Your task to perform on an android device: Open Maps and search for coffee Image 0: 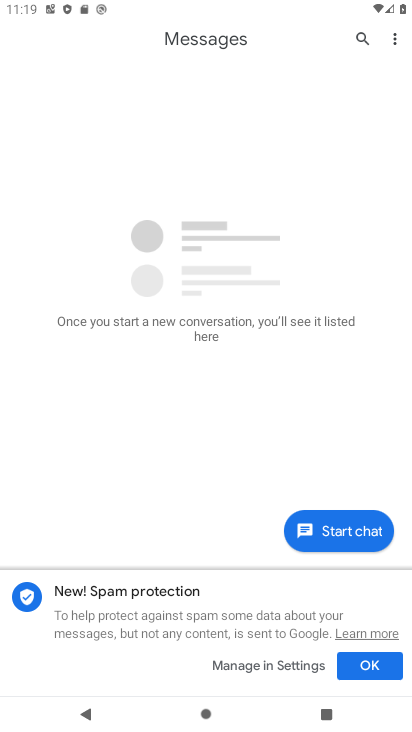
Step 0: press home button
Your task to perform on an android device: Open Maps and search for coffee Image 1: 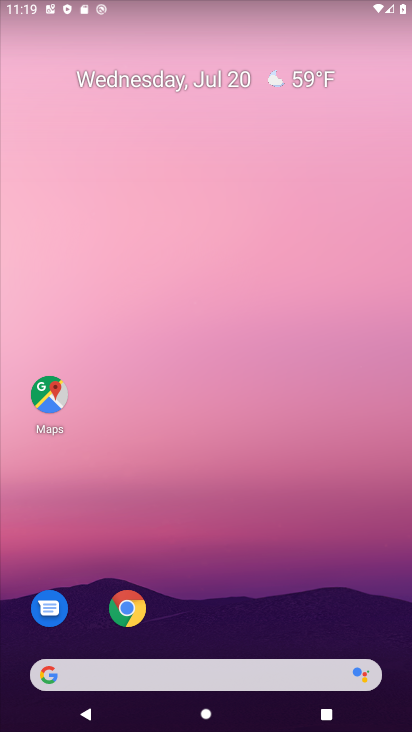
Step 1: drag from (266, 663) to (192, 123)
Your task to perform on an android device: Open Maps and search for coffee Image 2: 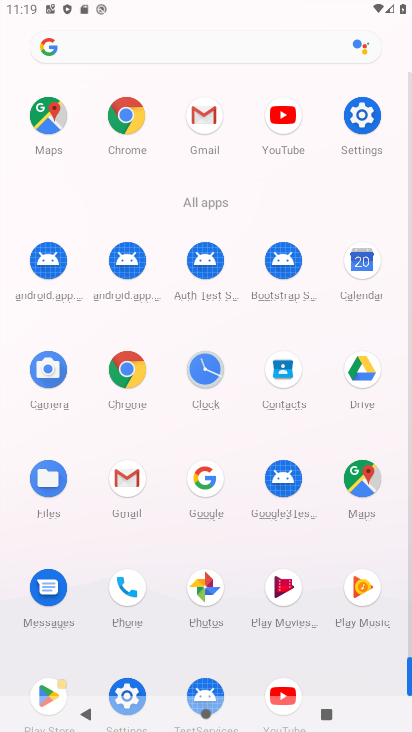
Step 2: click (363, 489)
Your task to perform on an android device: Open Maps and search for coffee Image 3: 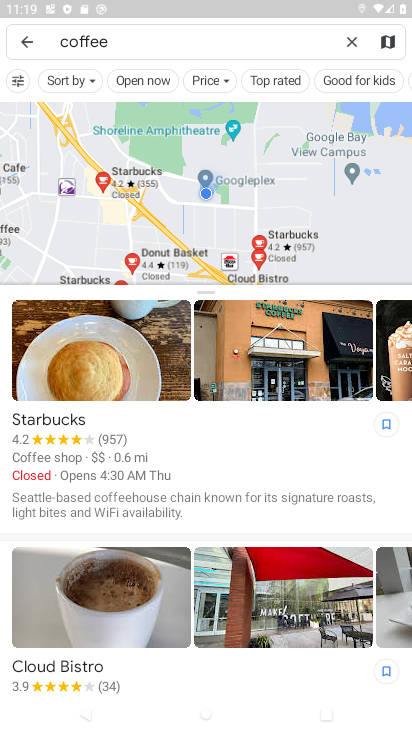
Step 3: task complete